Your task to perform on an android device: Open accessibility settings Image 0: 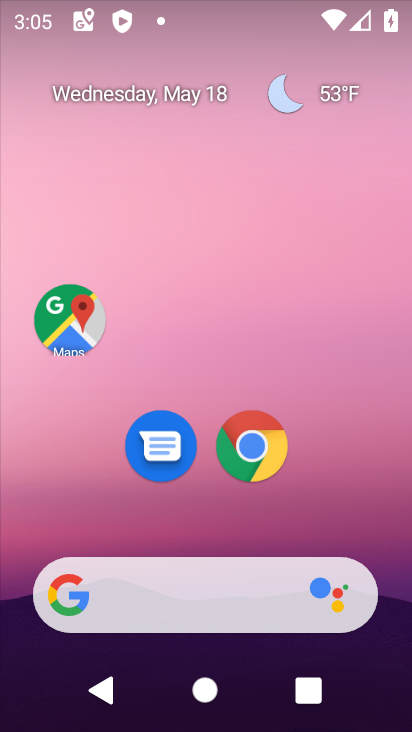
Step 0: drag from (399, 618) to (368, 7)
Your task to perform on an android device: Open accessibility settings Image 1: 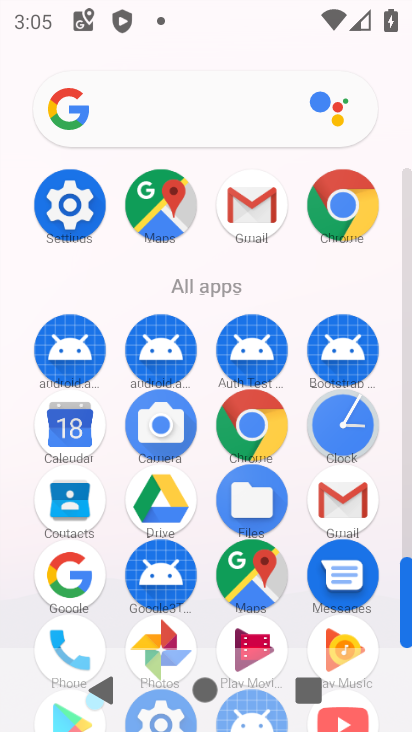
Step 1: click (61, 188)
Your task to perform on an android device: Open accessibility settings Image 2: 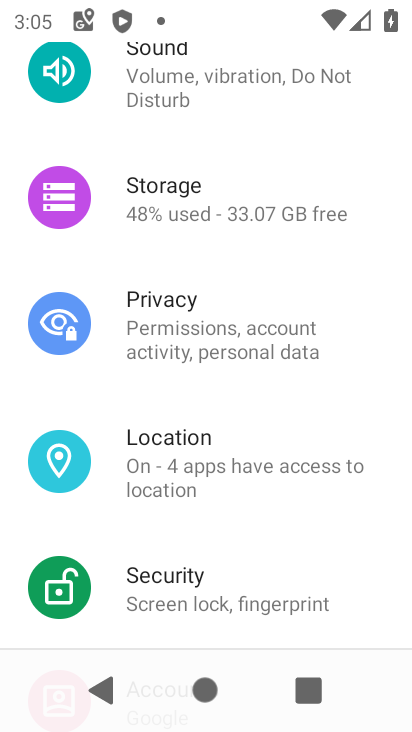
Step 2: drag from (188, 631) to (232, 76)
Your task to perform on an android device: Open accessibility settings Image 3: 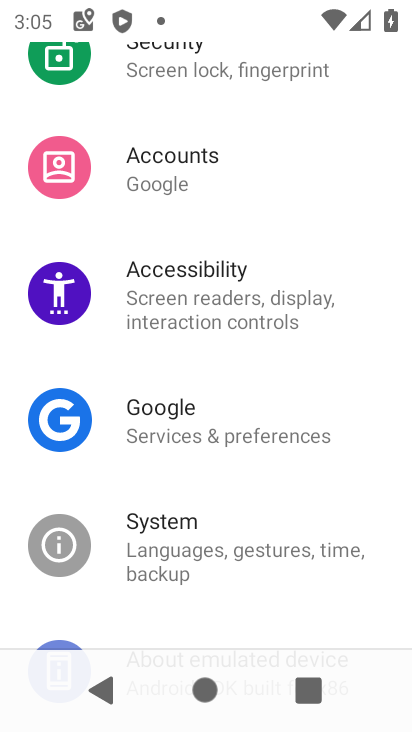
Step 3: drag from (185, 600) to (353, 32)
Your task to perform on an android device: Open accessibility settings Image 4: 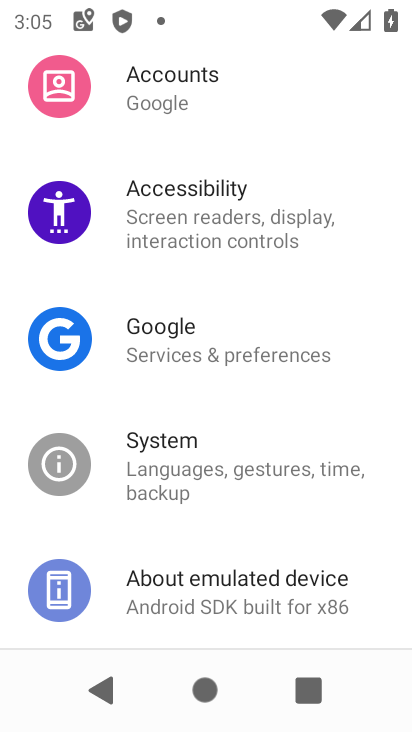
Step 4: click (273, 182)
Your task to perform on an android device: Open accessibility settings Image 5: 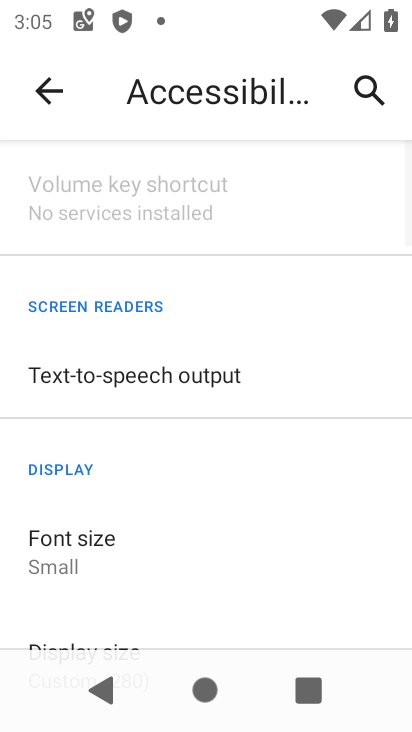
Step 5: task complete